Your task to perform on an android device: make emails show in primary in the gmail app Image 0: 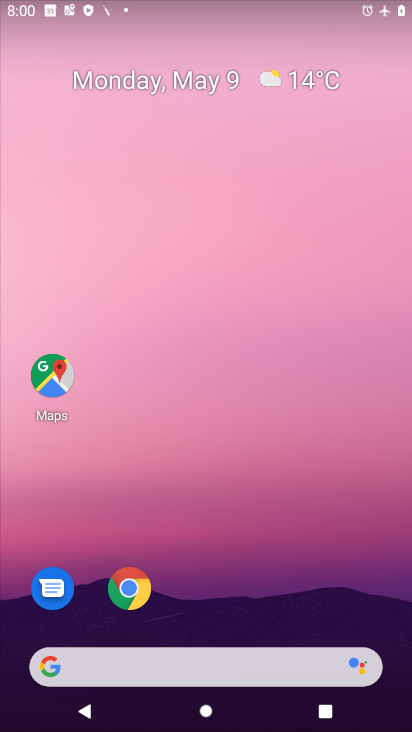
Step 0: drag from (301, 627) to (14, 21)
Your task to perform on an android device: make emails show in primary in the gmail app Image 1: 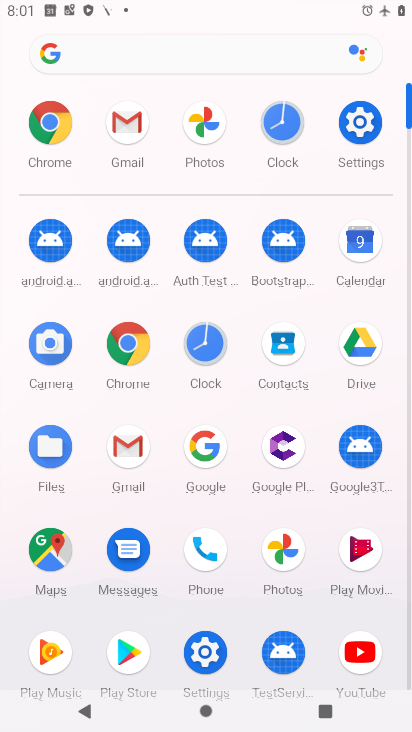
Step 1: click (143, 456)
Your task to perform on an android device: make emails show in primary in the gmail app Image 2: 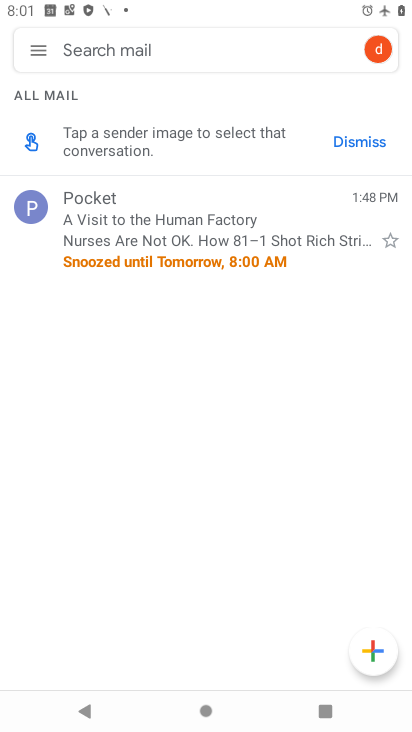
Step 2: click (165, 227)
Your task to perform on an android device: make emails show in primary in the gmail app Image 3: 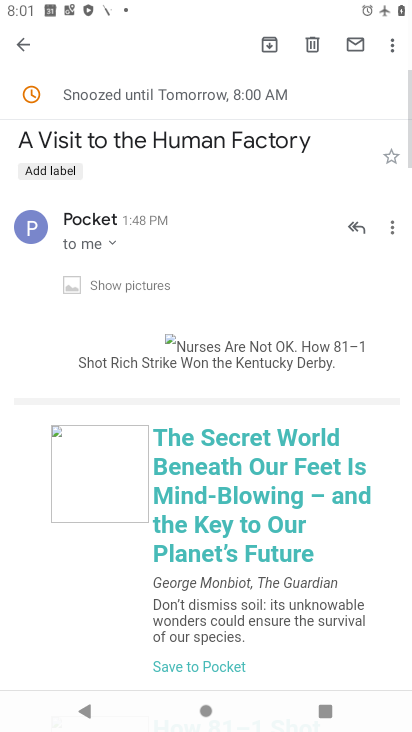
Step 3: click (391, 35)
Your task to perform on an android device: make emails show in primary in the gmail app Image 4: 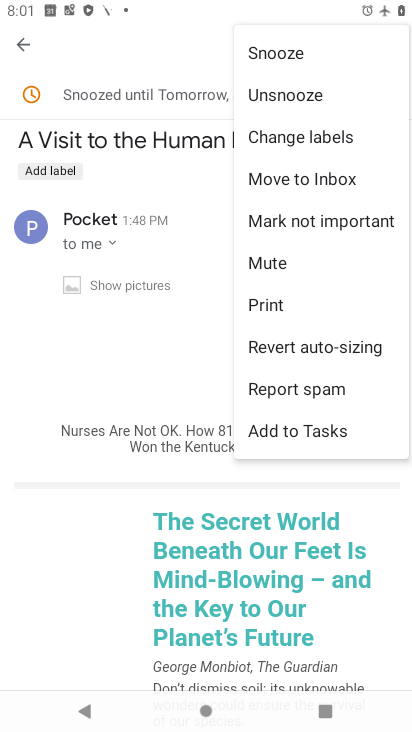
Step 4: task complete